Your task to perform on an android device: Open eBay Image 0: 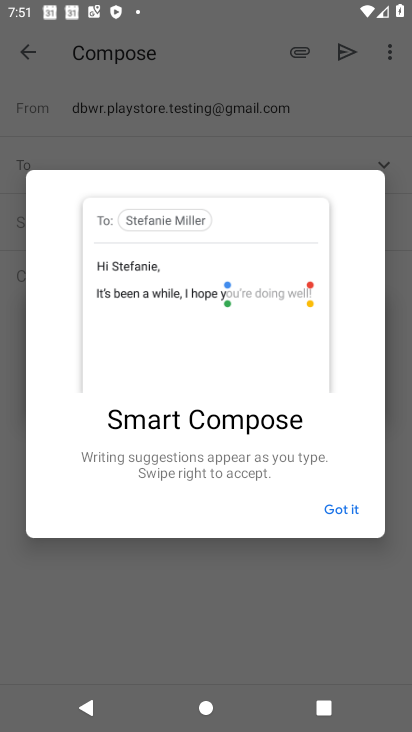
Step 0: press home button
Your task to perform on an android device: Open eBay Image 1: 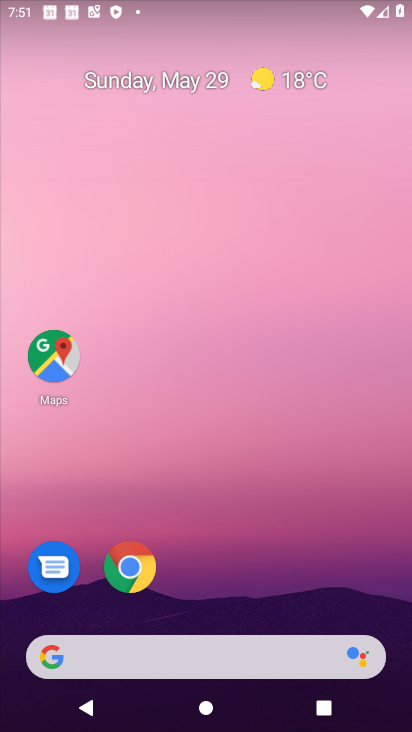
Step 1: click (129, 567)
Your task to perform on an android device: Open eBay Image 2: 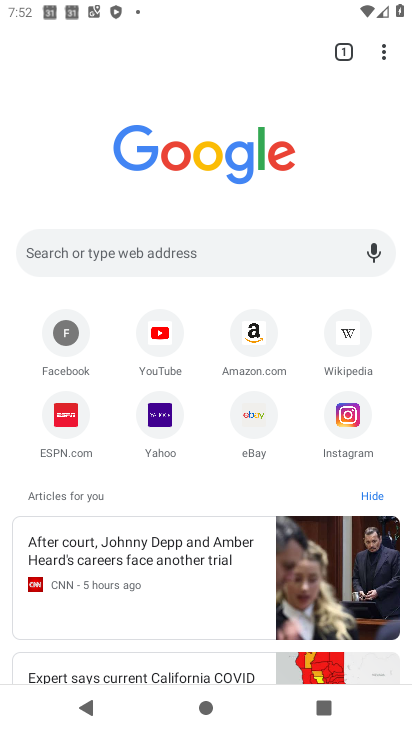
Step 2: click (247, 254)
Your task to perform on an android device: Open eBay Image 3: 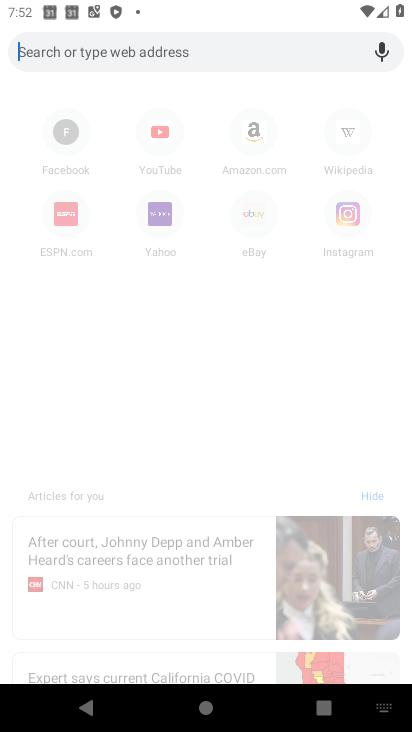
Step 3: type "eBay"
Your task to perform on an android device: Open eBay Image 4: 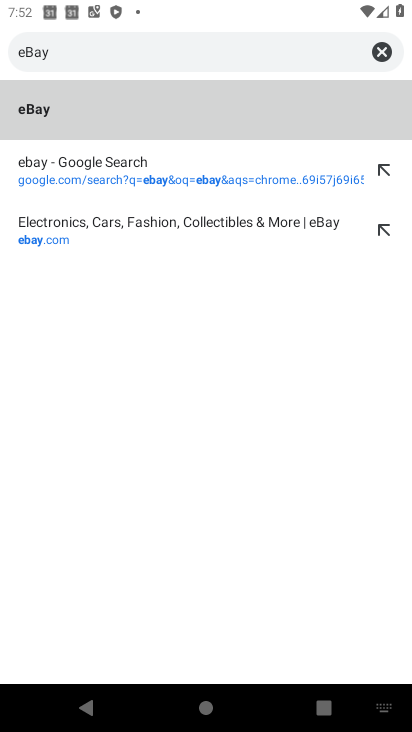
Step 4: click (74, 126)
Your task to perform on an android device: Open eBay Image 5: 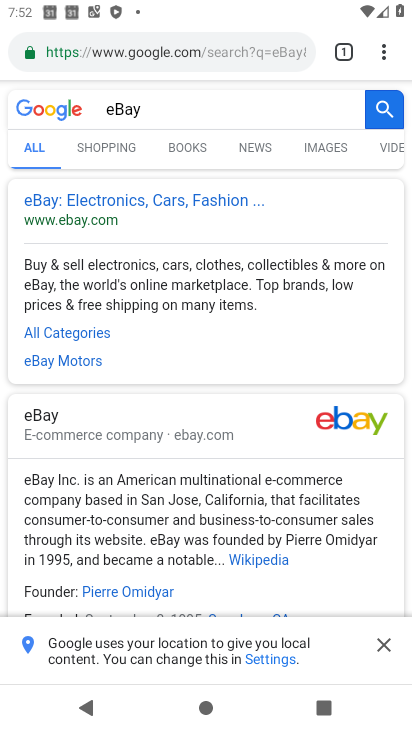
Step 5: click (123, 200)
Your task to perform on an android device: Open eBay Image 6: 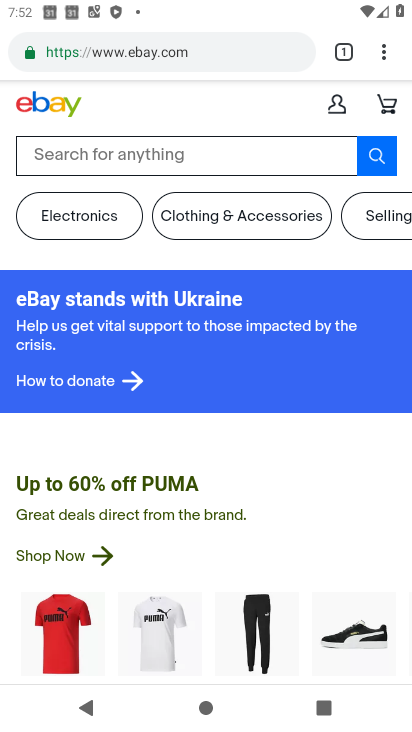
Step 6: task complete